Your task to perform on an android device: What's on my calendar today? Image 0: 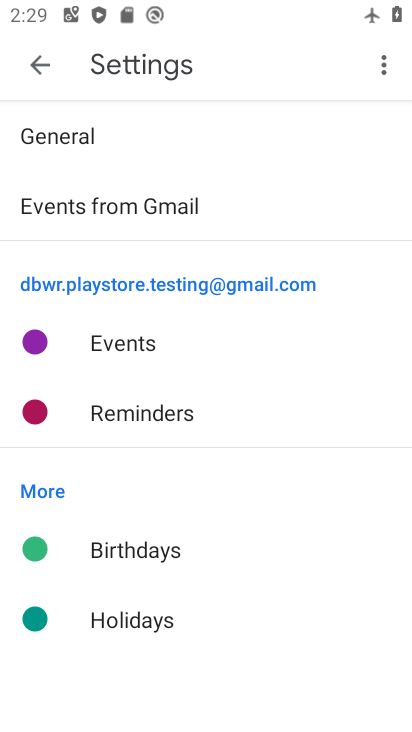
Step 0: press home button
Your task to perform on an android device: What's on my calendar today? Image 1: 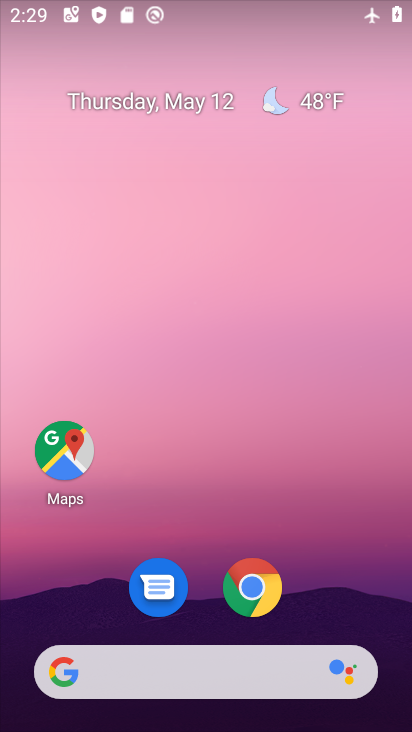
Step 1: drag from (203, 622) to (242, 209)
Your task to perform on an android device: What's on my calendar today? Image 2: 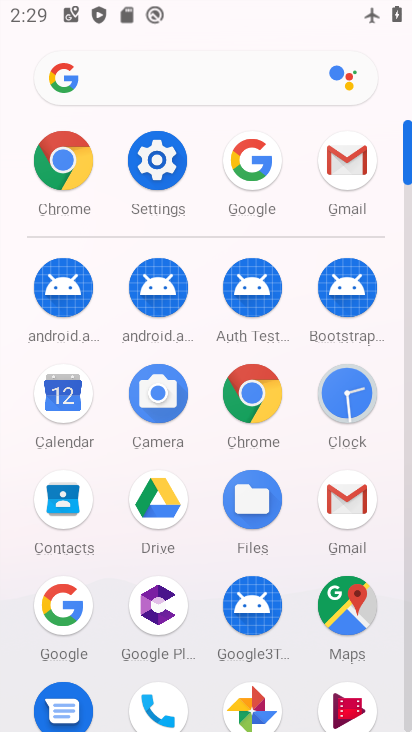
Step 2: click (74, 408)
Your task to perform on an android device: What's on my calendar today? Image 3: 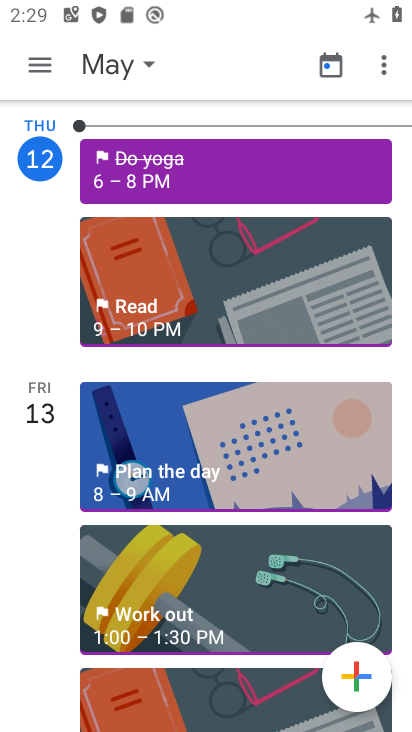
Step 3: task complete